Your task to perform on an android device: Check the news Image 0: 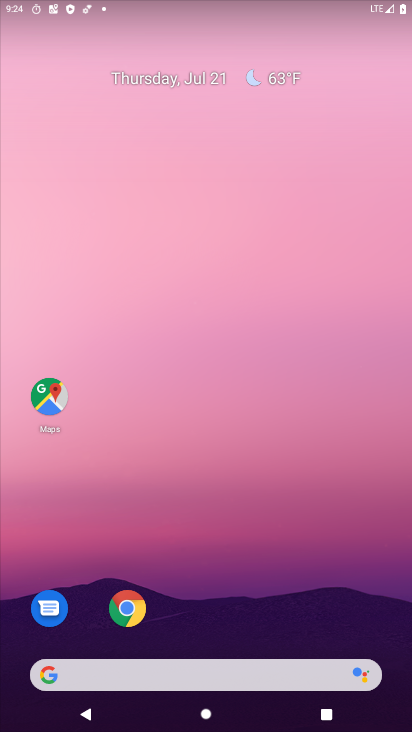
Step 0: drag from (227, 633) to (347, 28)
Your task to perform on an android device: Check the news Image 1: 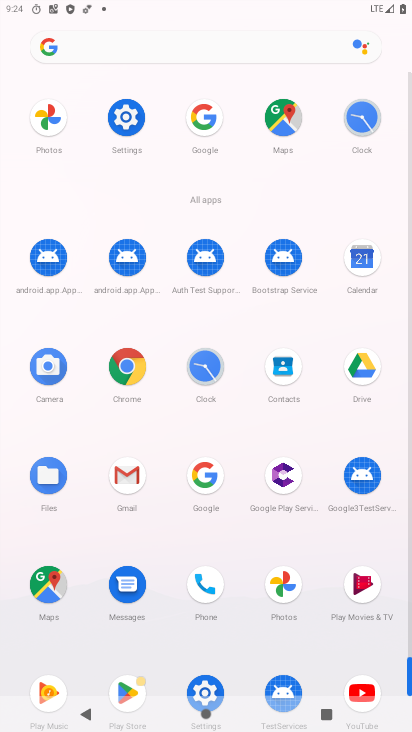
Step 1: click (196, 489)
Your task to perform on an android device: Check the news Image 2: 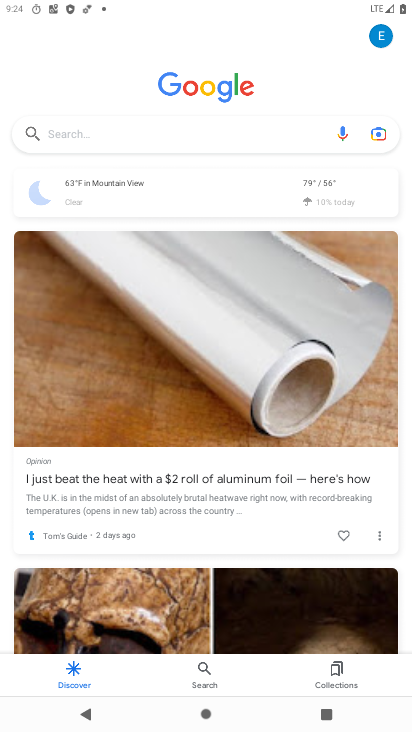
Step 2: click (119, 139)
Your task to perform on an android device: Check the news Image 3: 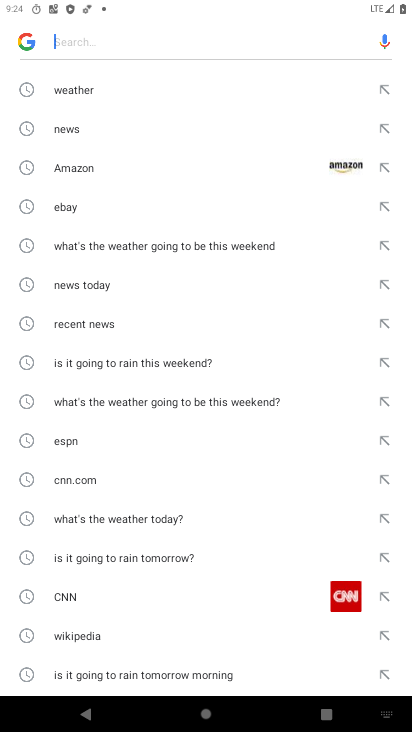
Step 3: click (85, 132)
Your task to perform on an android device: Check the news Image 4: 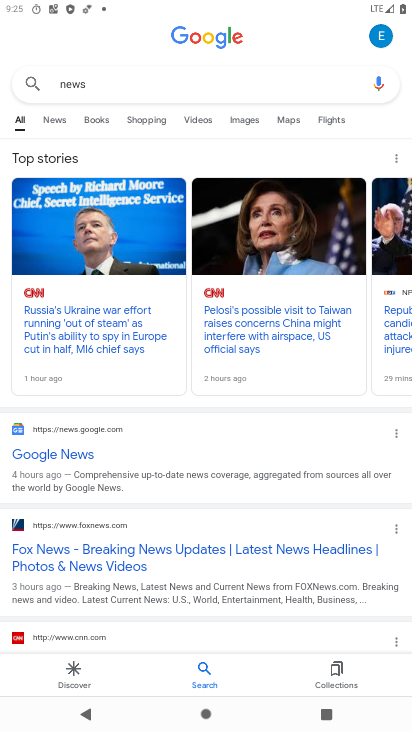
Step 4: click (59, 121)
Your task to perform on an android device: Check the news Image 5: 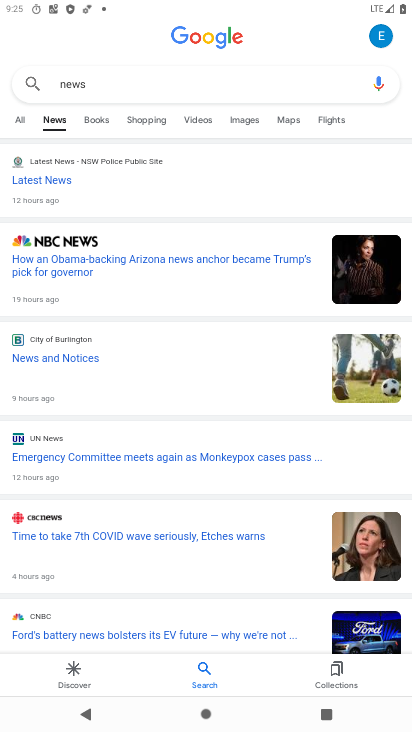
Step 5: task complete